Your task to perform on an android device: find snoozed emails in the gmail app Image 0: 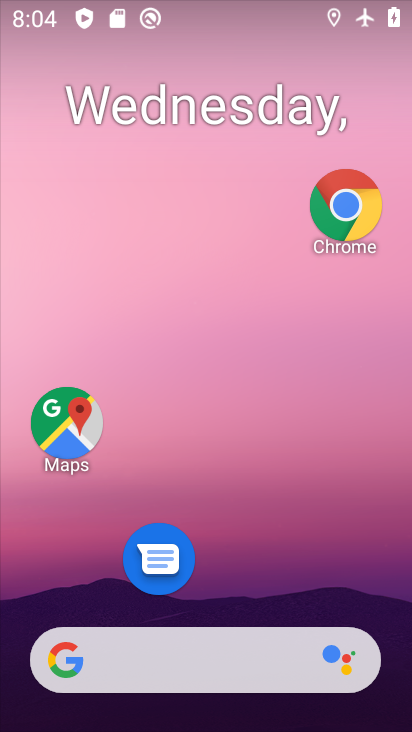
Step 0: drag from (211, 600) to (287, 275)
Your task to perform on an android device: find snoozed emails in the gmail app Image 1: 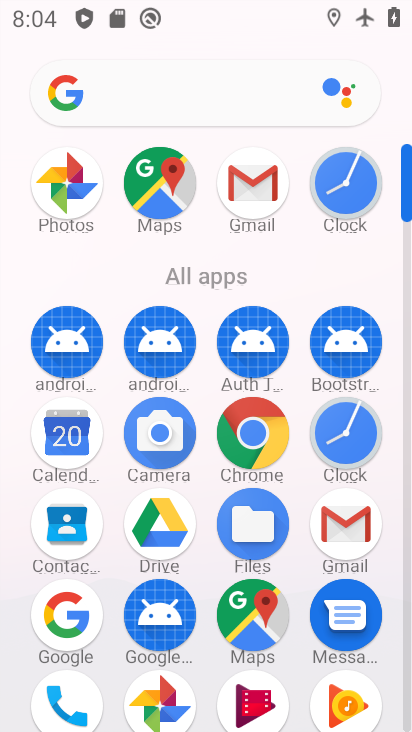
Step 1: click (356, 520)
Your task to perform on an android device: find snoozed emails in the gmail app Image 2: 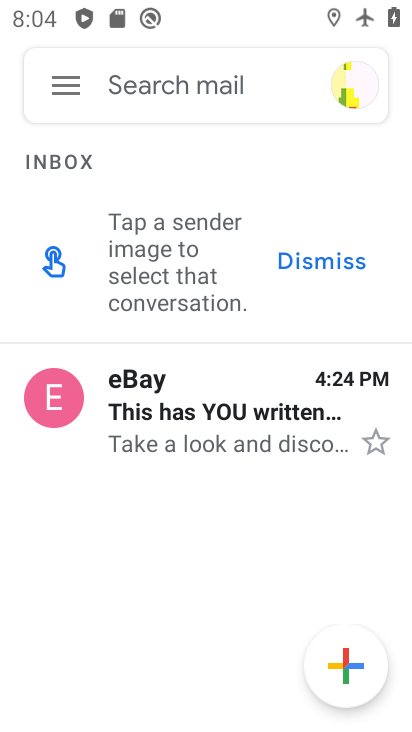
Step 2: click (53, 97)
Your task to perform on an android device: find snoozed emails in the gmail app Image 3: 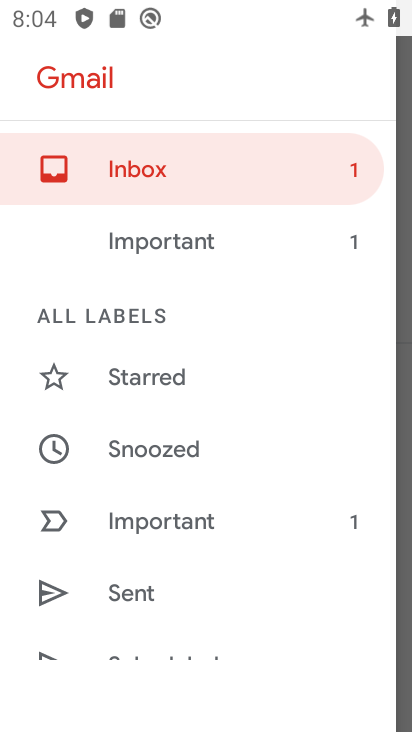
Step 3: click (154, 454)
Your task to perform on an android device: find snoozed emails in the gmail app Image 4: 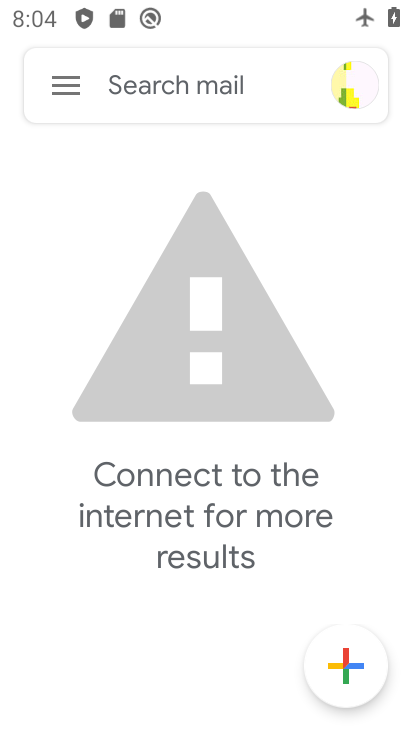
Step 4: drag from (202, 503) to (240, 377)
Your task to perform on an android device: find snoozed emails in the gmail app Image 5: 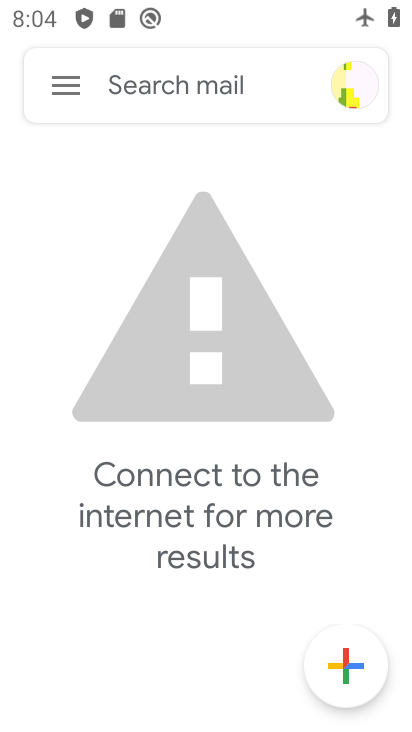
Step 5: click (78, 94)
Your task to perform on an android device: find snoozed emails in the gmail app Image 6: 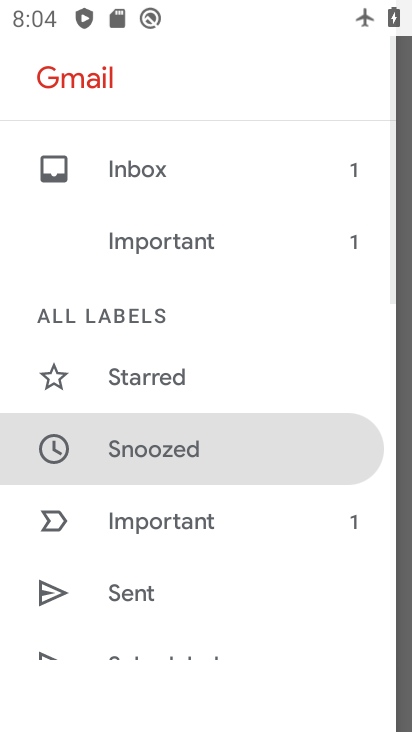
Step 6: click (156, 430)
Your task to perform on an android device: find snoozed emails in the gmail app Image 7: 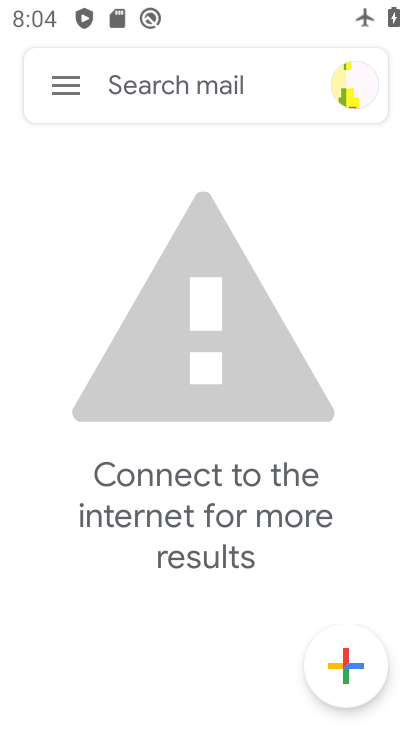
Step 7: drag from (263, 505) to (322, 365)
Your task to perform on an android device: find snoozed emails in the gmail app Image 8: 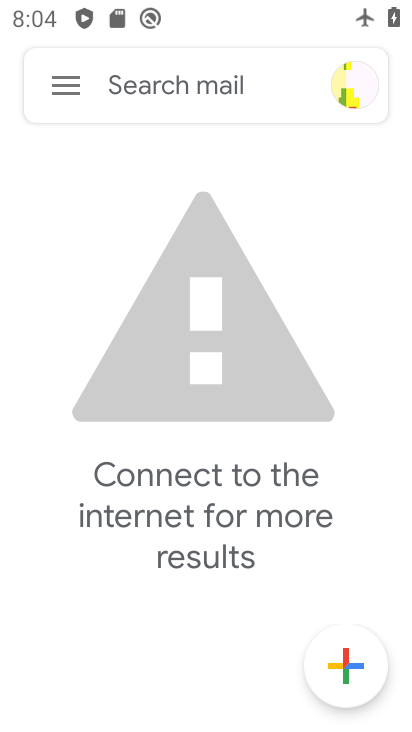
Step 8: click (156, 473)
Your task to perform on an android device: find snoozed emails in the gmail app Image 9: 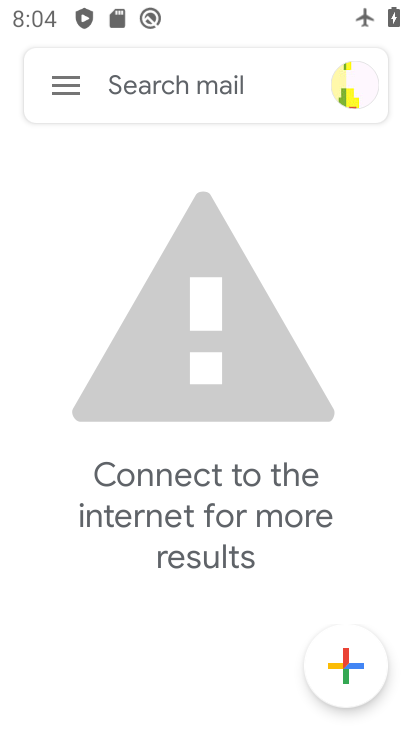
Step 9: task complete